Your task to perform on an android device: Open the Play Movies app and select the watchlist tab. Image 0: 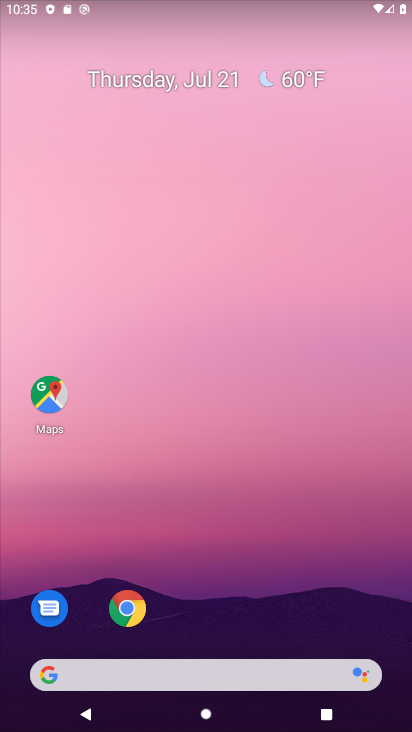
Step 0: drag from (211, 641) to (283, 22)
Your task to perform on an android device: Open the Play Movies app and select the watchlist tab. Image 1: 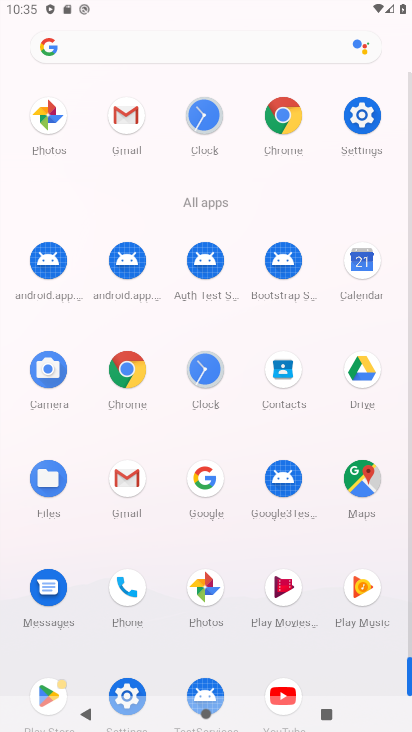
Step 1: click (287, 594)
Your task to perform on an android device: Open the Play Movies app and select the watchlist tab. Image 2: 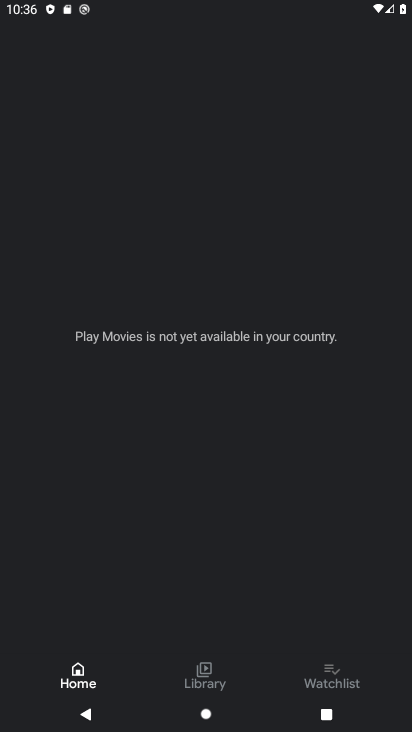
Step 2: click (324, 664)
Your task to perform on an android device: Open the Play Movies app and select the watchlist tab. Image 3: 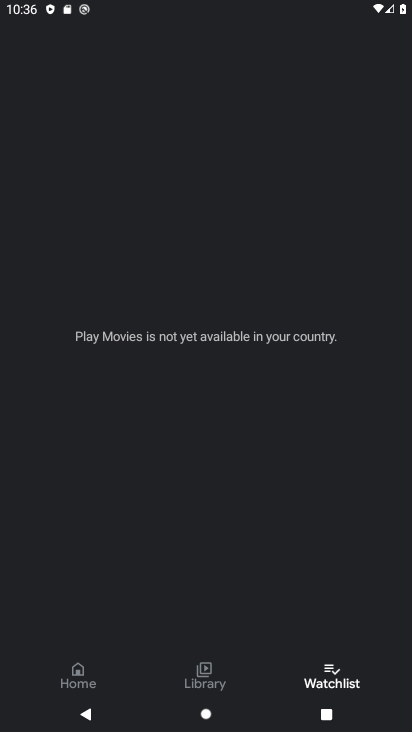
Step 3: task complete